Your task to perform on an android device: Go to location settings Image 0: 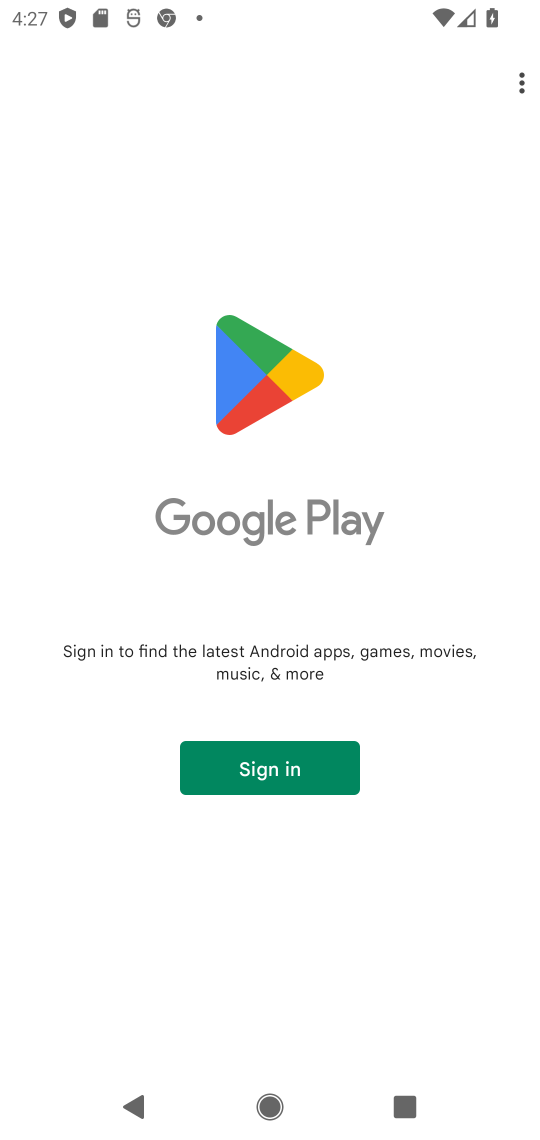
Step 0: press home button
Your task to perform on an android device: Go to location settings Image 1: 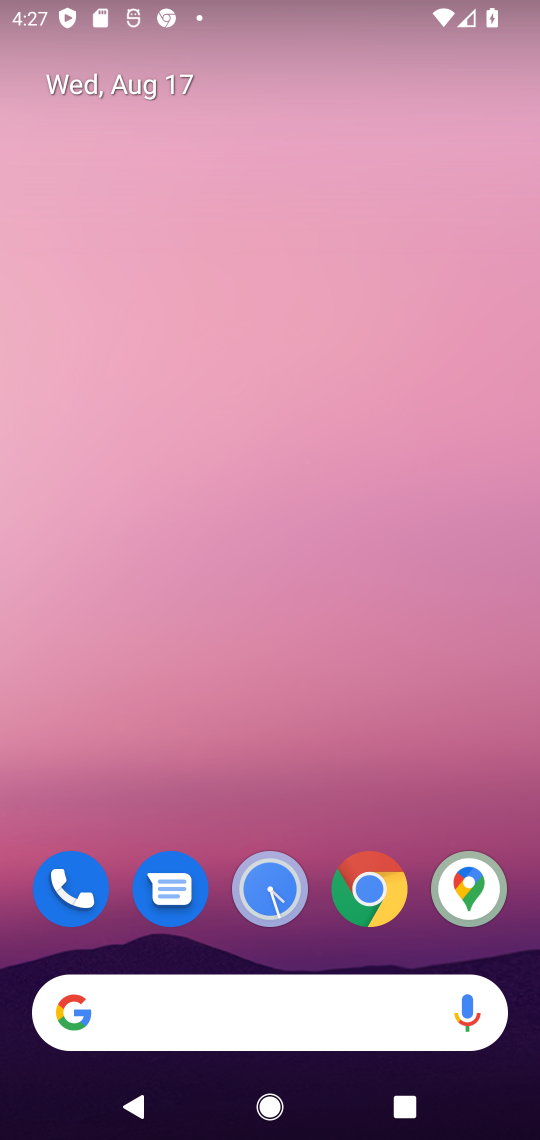
Step 1: drag from (294, 818) to (284, 19)
Your task to perform on an android device: Go to location settings Image 2: 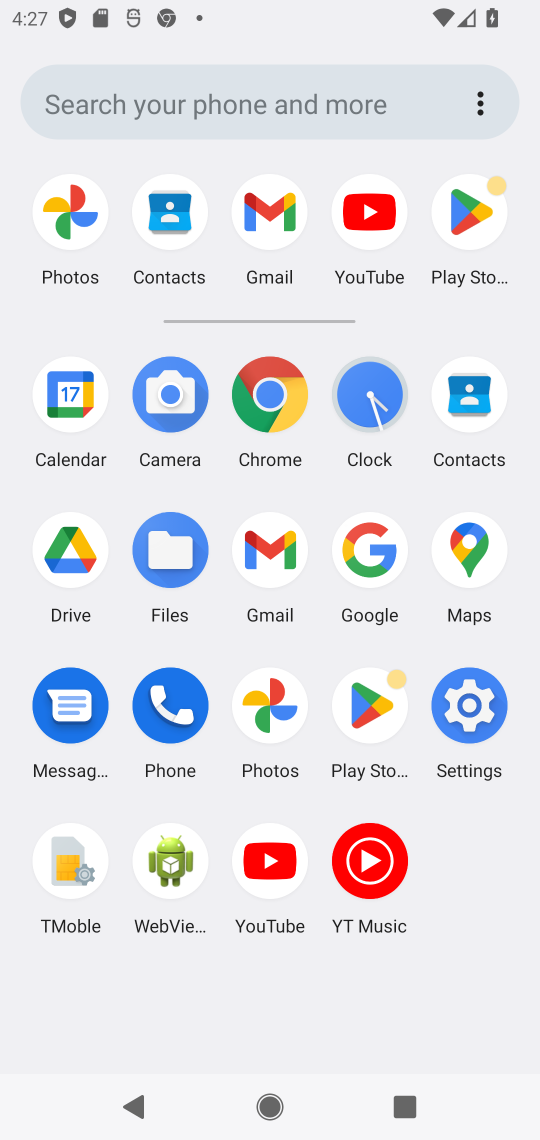
Step 2: click (471, 704)
Your task to perform on an android device: Go to location settings Image 3: 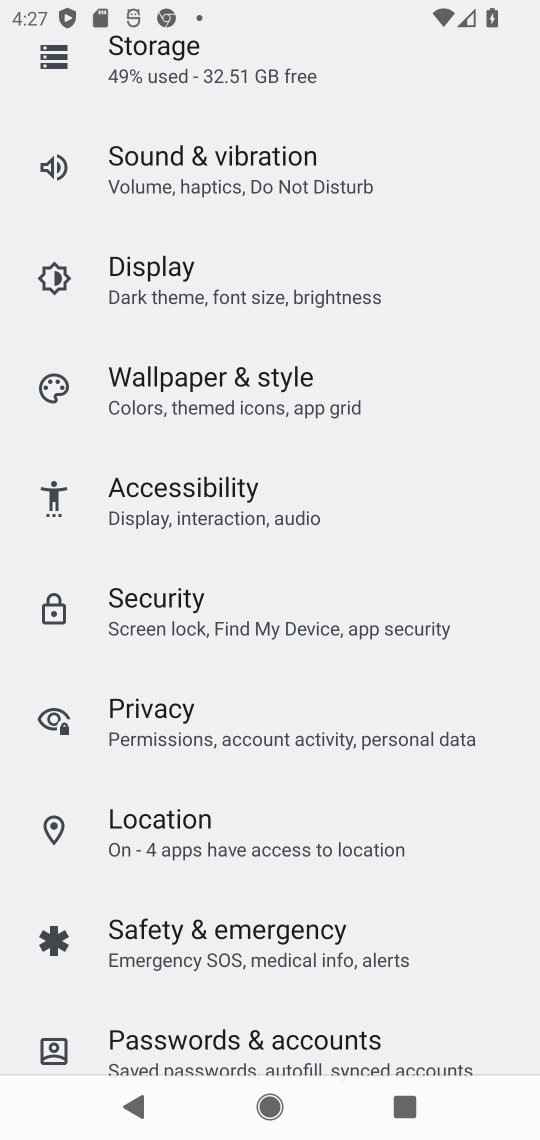
Step 3: click (160, 816)
Your task to perform on an android device: Go to location settings Image 4: 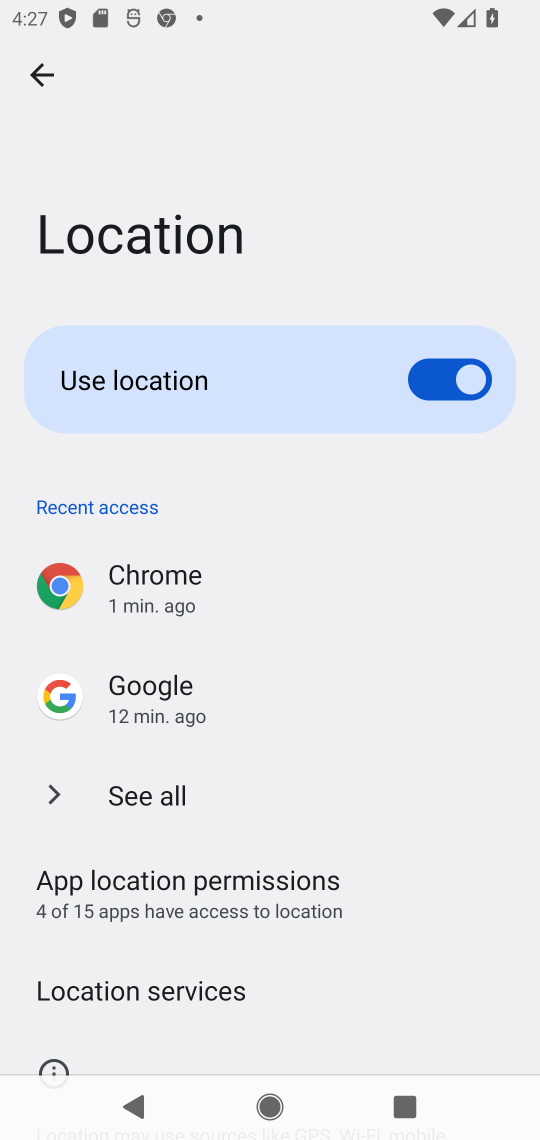
Step 4: task complete